Your task to perform on an android device: toggle translation in the chrome app Image 0: 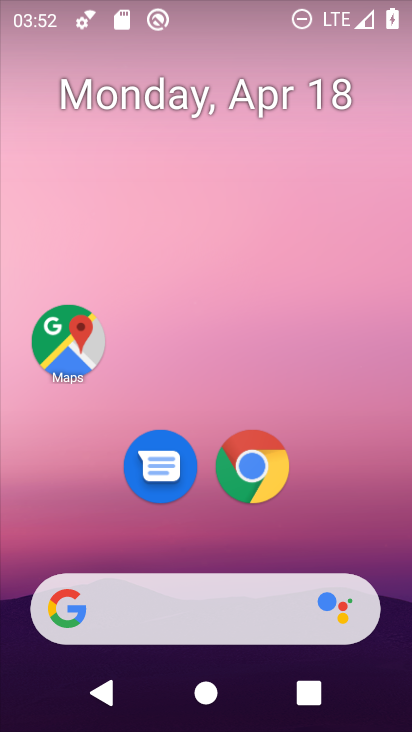
Step 0: click (276, 479)
Your task to perform on an android device: toggle translation in the chrome app Image 1: 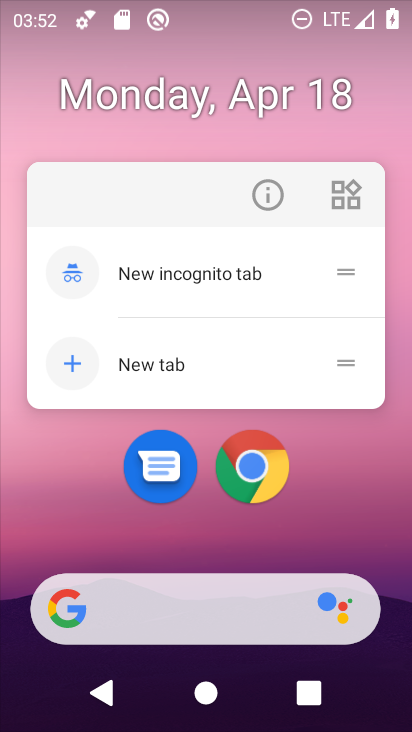
Step 1: click (276, 479)
Your task to perform on an android device: toggle translation in the chrome app Image 2: 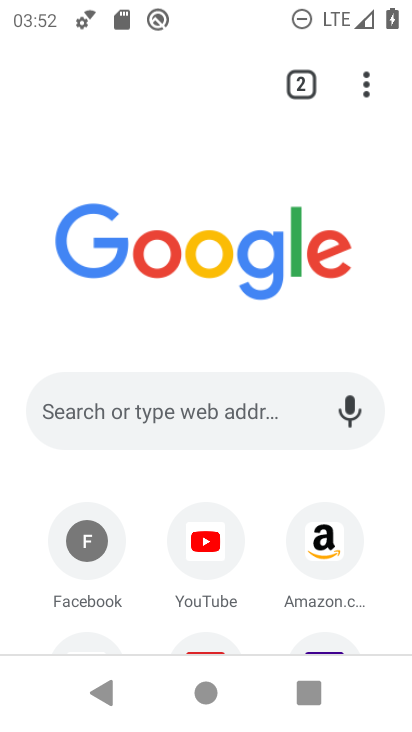
Step 2: click (367, 98)
Your task to perform on an android device: toggle translation in the chrome app Image 3: 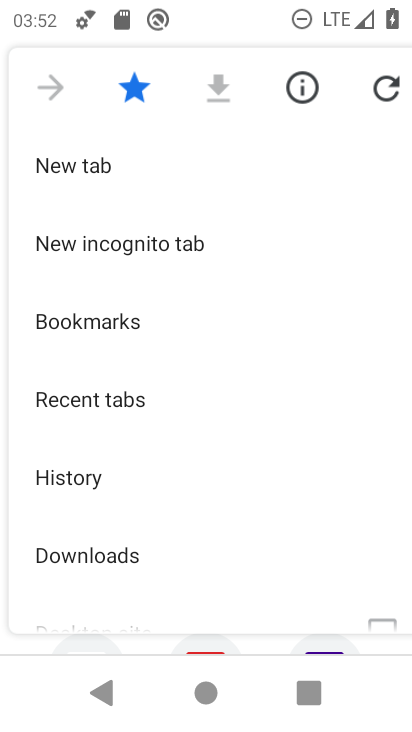
Step 3: drag from (179, 502) to (212, 191)
Your task to perform on an android device: toggle translation in the chrome app Image 4: 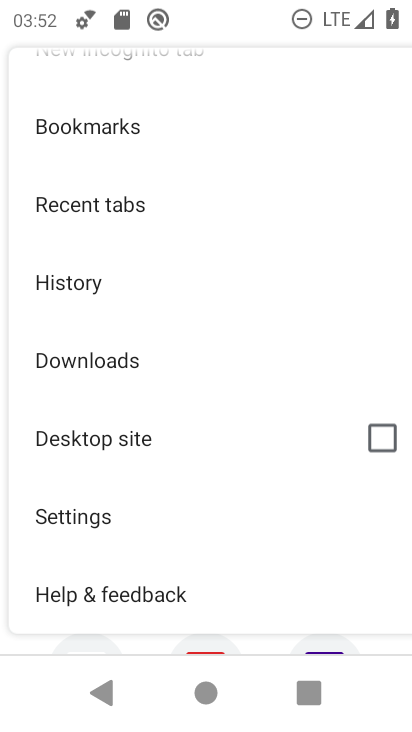
Step 4: click (173, 507)
Your task to perform on an android device: toggle translation in the chrome app Image 5: 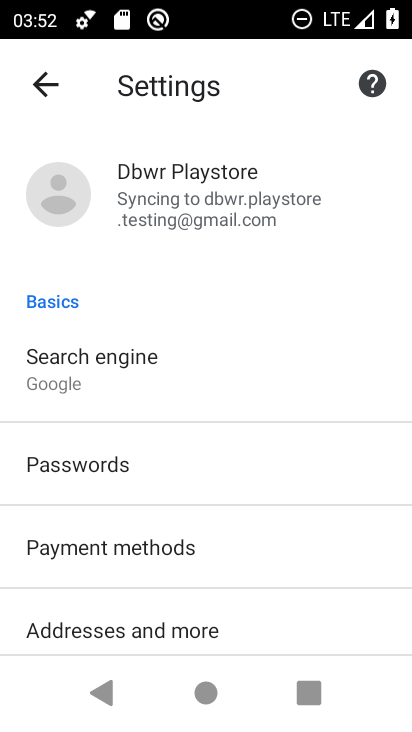
Step 5: drag from (125, 521) to (164, 260)
Your task to perform on an android device: toggle translation in the chrome app Image 6: 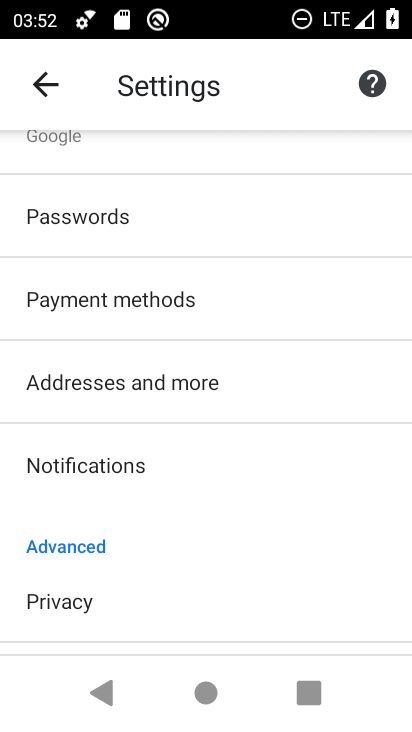
Step 6: drag from (164, 591) to (212, 334)
Your task to perform on an android device: toggle translation in the chrome app Image 7: 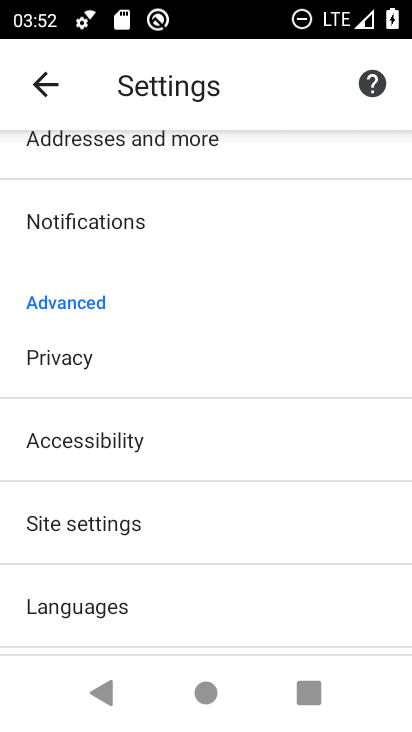
Step 7: click (190, 578)
Your task to perform on an android device: toggle translation in the chrome app Image 8: 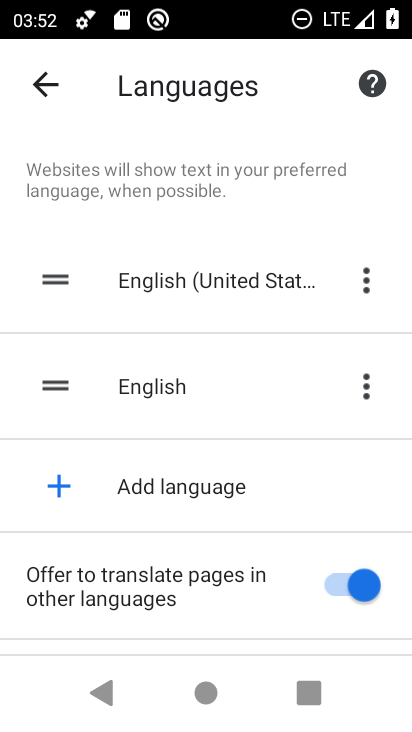
Step 8: click (262, 562)
Your task to perform on an android device: toggle translation in the chrome app Image 9: 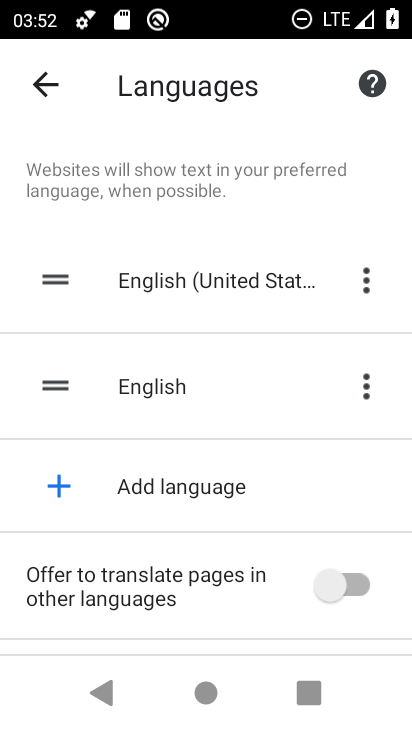
Step 9: task complete